Your task to perform on an android device: stop showing notifications on the lock screen Image 0: 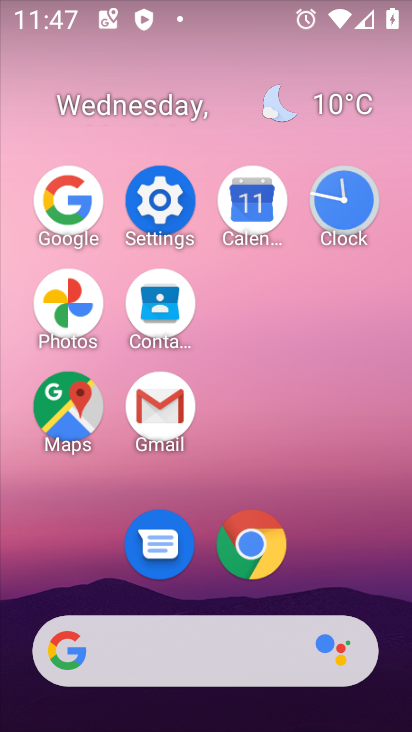
Step 0: click (135, 182)
Your task to perform on an android device: stop showing notifications on the lock screen Image 1: 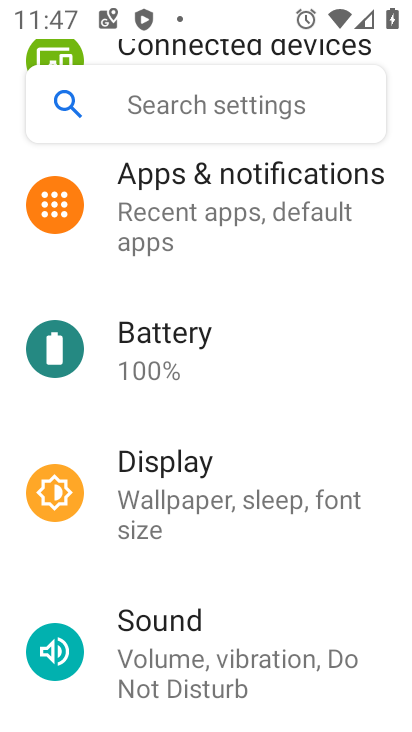
Step 1: click (208, 200)
Your task to perform on an android device: stop showing notifications on the lock screen Image 2: 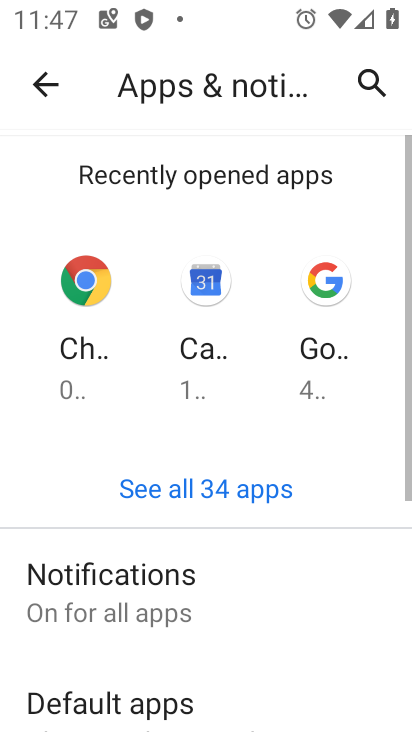
Step 2: click (240, 615)
Your task to perform on an android device: stop showing notifications on the lock screen Image 3: 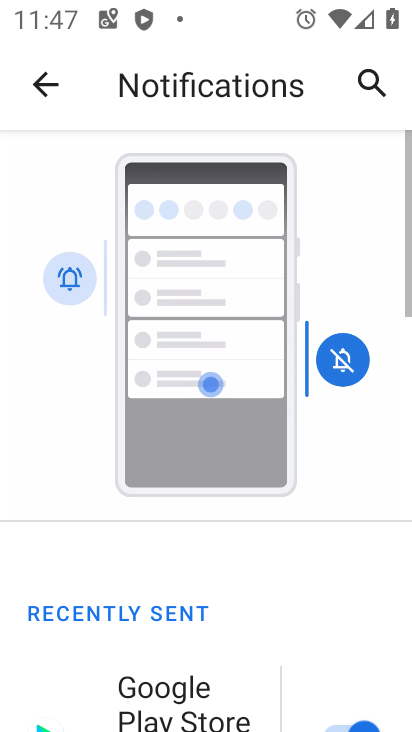
Step 3: drag from (251, 448) to (222, 108)
Your task to perform on an android device: stop showing notifications on the lock screen Image 4: 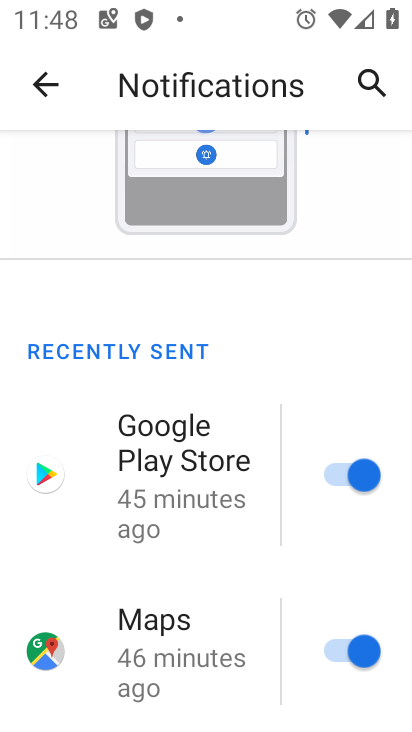
Step 4: drag from (221, 613) to (268, 184)
Your task to perform on an android device: stop showing notifications on the lock screen Image 5: 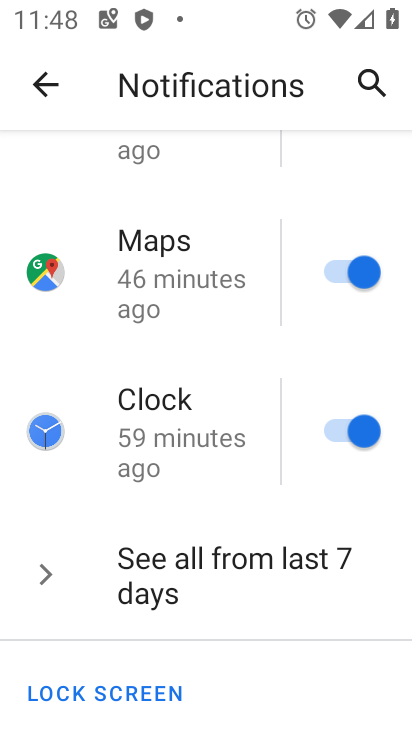
Step 5: drag from (269, 615) to (295, 257)
Your task to perform on an android device: stop showing notifications on the lock screen Image 6: 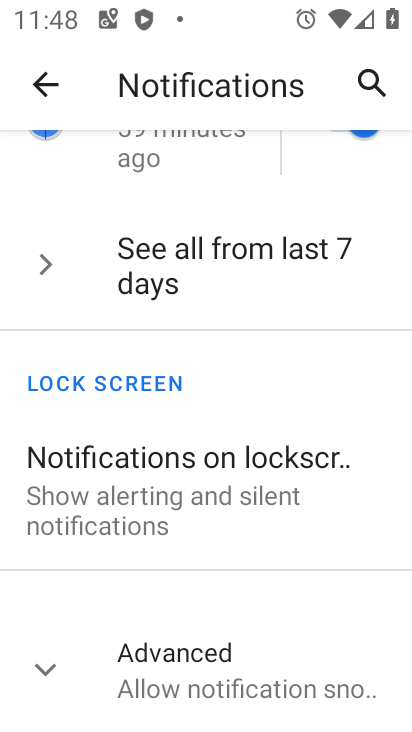
Step 6: click (225, 521)
Your task to perform on an android device: stop showing notifications on the lock screen Image 7: 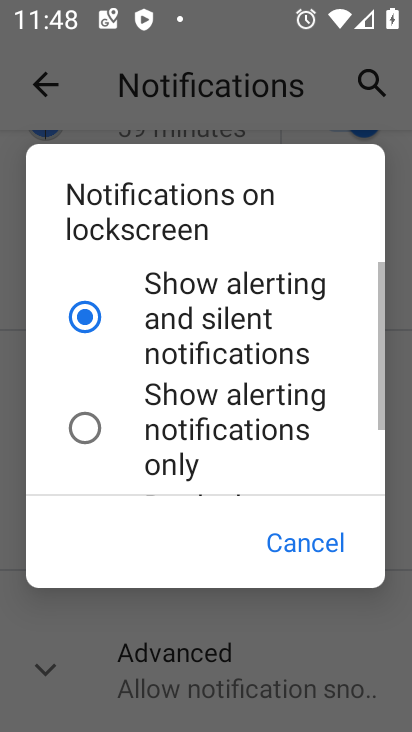
Step 7: drag from (210, 413) to (222, 183)
Your task to perform on an android device: stop showing notifications on the lock screen Image 8: 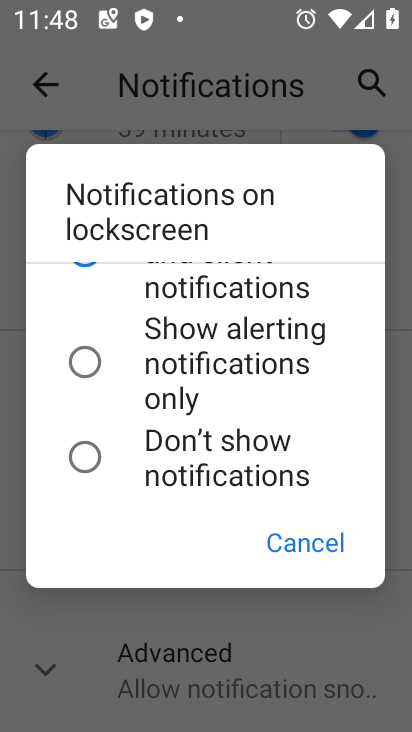
Step 8: click (114, 472)
Your task to perform on an android device: stop showing notifications on the lock screen Image 9: 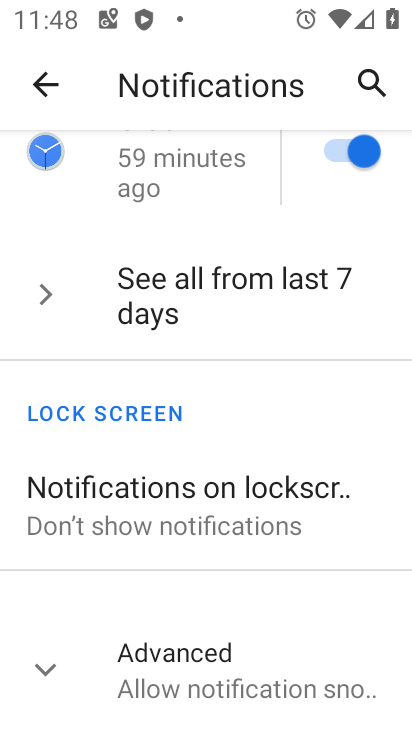
Step 9: task complete